Your task to perform on an android device: Open Yahoo.com Image 0: 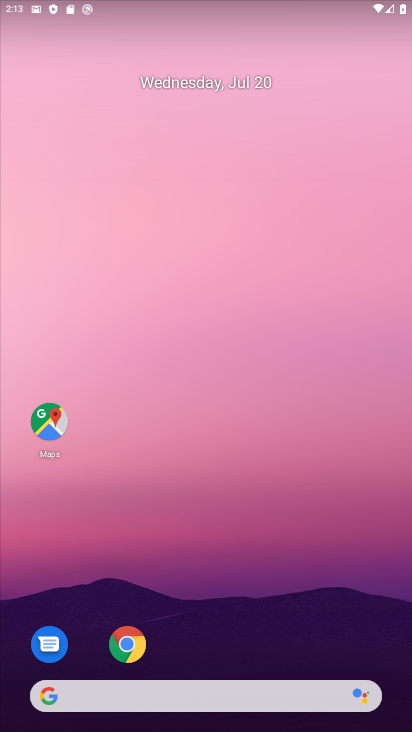
Step 0: press home button
Your task to perform on an android device: Open Yahoo.com Image 1: 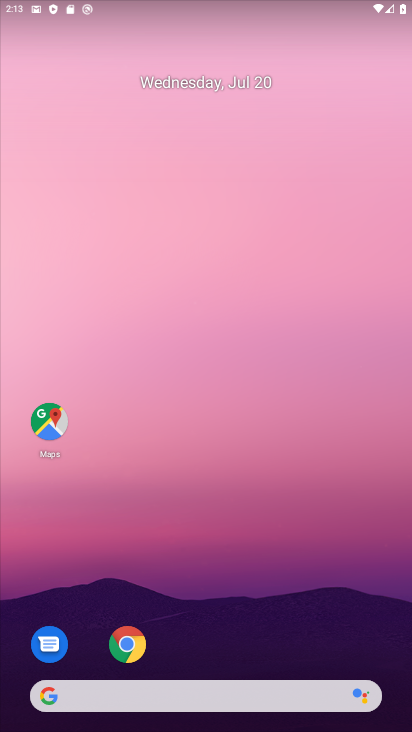
Step 1: click (147, 643)
Your task to perform on an android device: Open Yahoo.com Image 2: 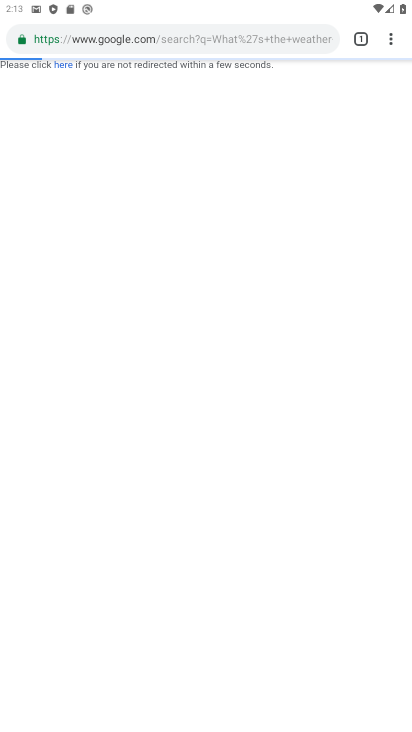
Step 2: click (152, 32)
Your task to perform on an android device: Open Yahoo.com Image 3: 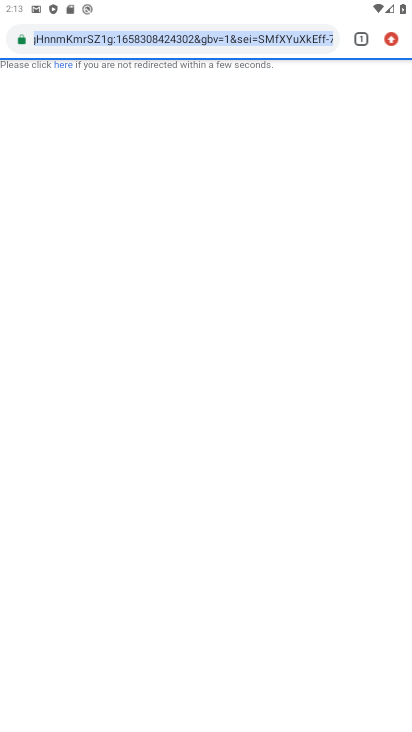
Step 3: click (161, 42)
Your task to perform on an android device: Open Yahoo.com Image 4: 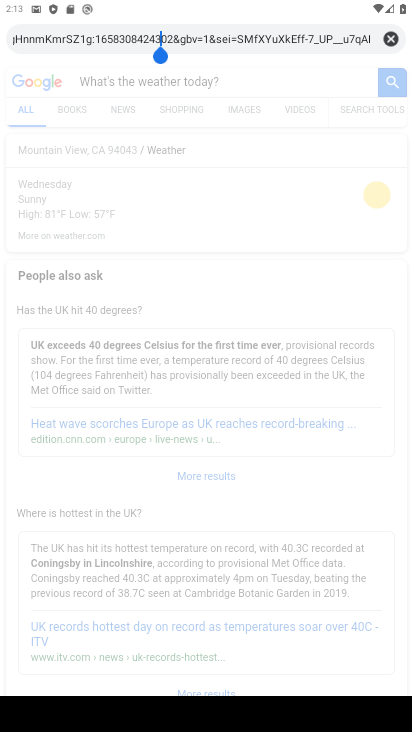
Step 4: click (389, 39)
Your task to perform on an android device: Open Yahoo.com Image 5: 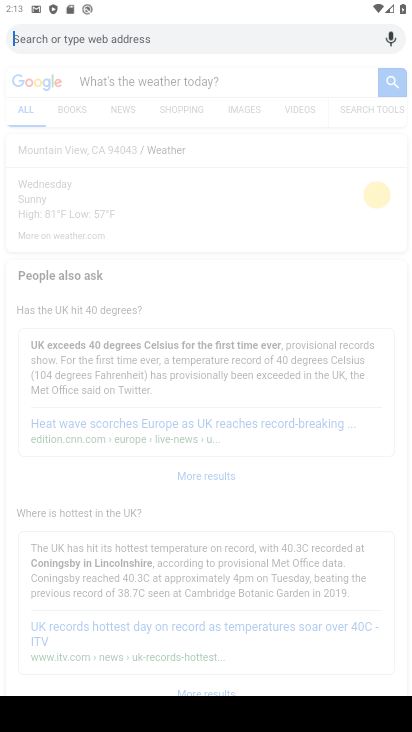
Step 5: type "Yahoo.com"
Your task to perform on an android device: Open Yahoo.com Image 6: 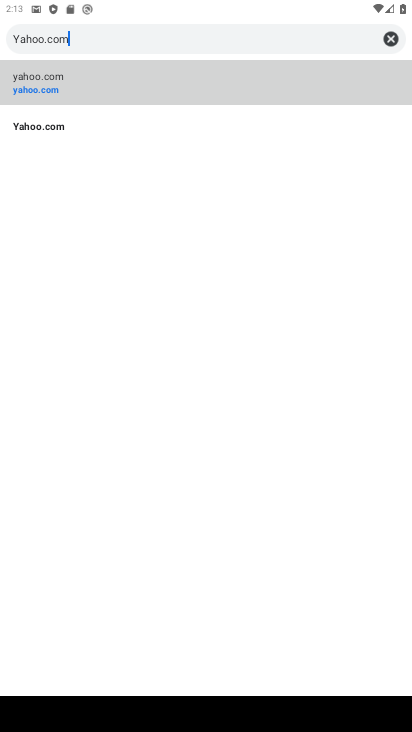
Step 6: type ""
Your task to perform on an android device: Open Yahoo.com Image 7: 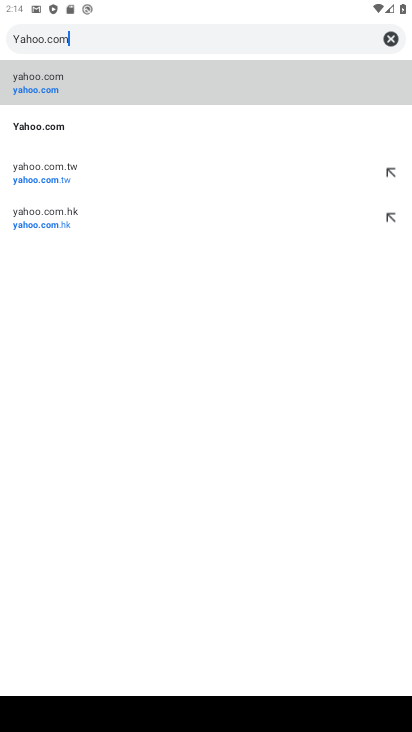
Step 7: click (234, 72)
Your task to perform on an android device: Open Yahoo.com Image 8: 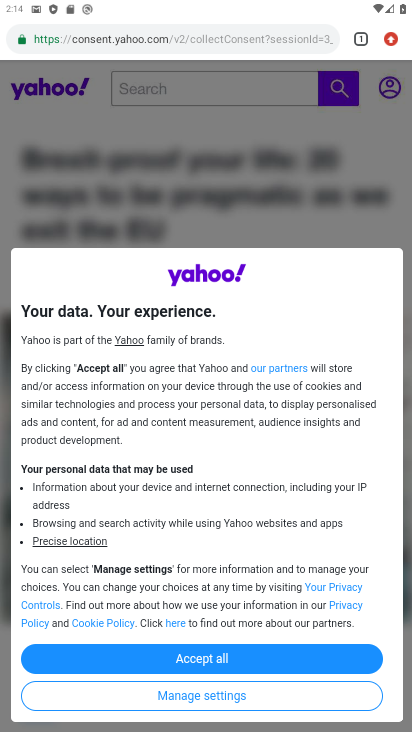
Step 8: task complete